Your task to perform on an android device: turn on the 12-hour format for clock Image 0: 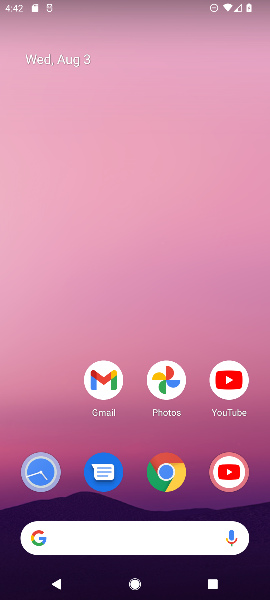
Step 0: drag from (219, 493) to (81, 17)
Your task to perform on an android device: turn on the 12-hour format for clock Image 1: 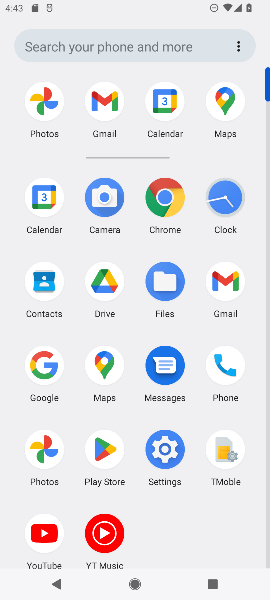
Step 1: click (221, 201)
Your task to perform on an android device: turn on the 12-hour format for clock Image 2: 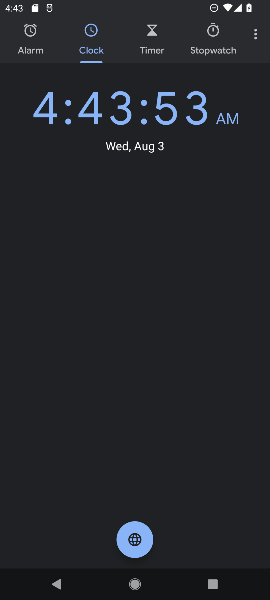
Step 2: click (254, 35)
Your task to perform on an android device: turn on the 12-hour format for clock Image 3: 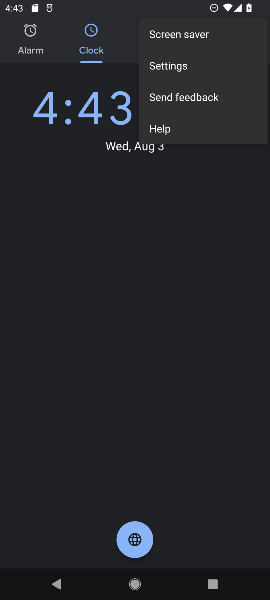
Step 3: click (198, 69)
Your task to perform on an android device: turn on the 12-hour format for clock Image 4: 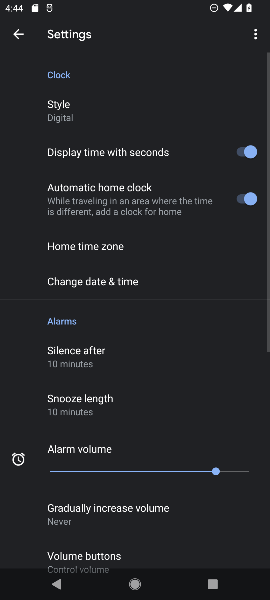
Step 4: click (116, 283)
Your task to perform on an android device: turn on the 12-hour format for clock Image 5: 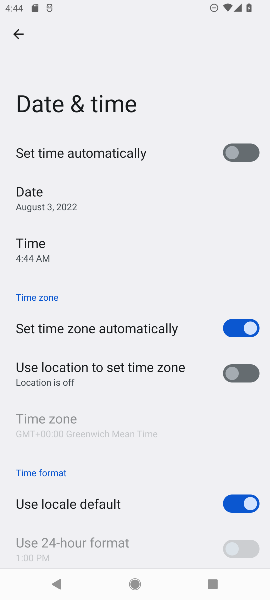
Step 5: task complete